Your task to perform on an android device: open app "Google Play Games" (install if not already installed) Image 0: 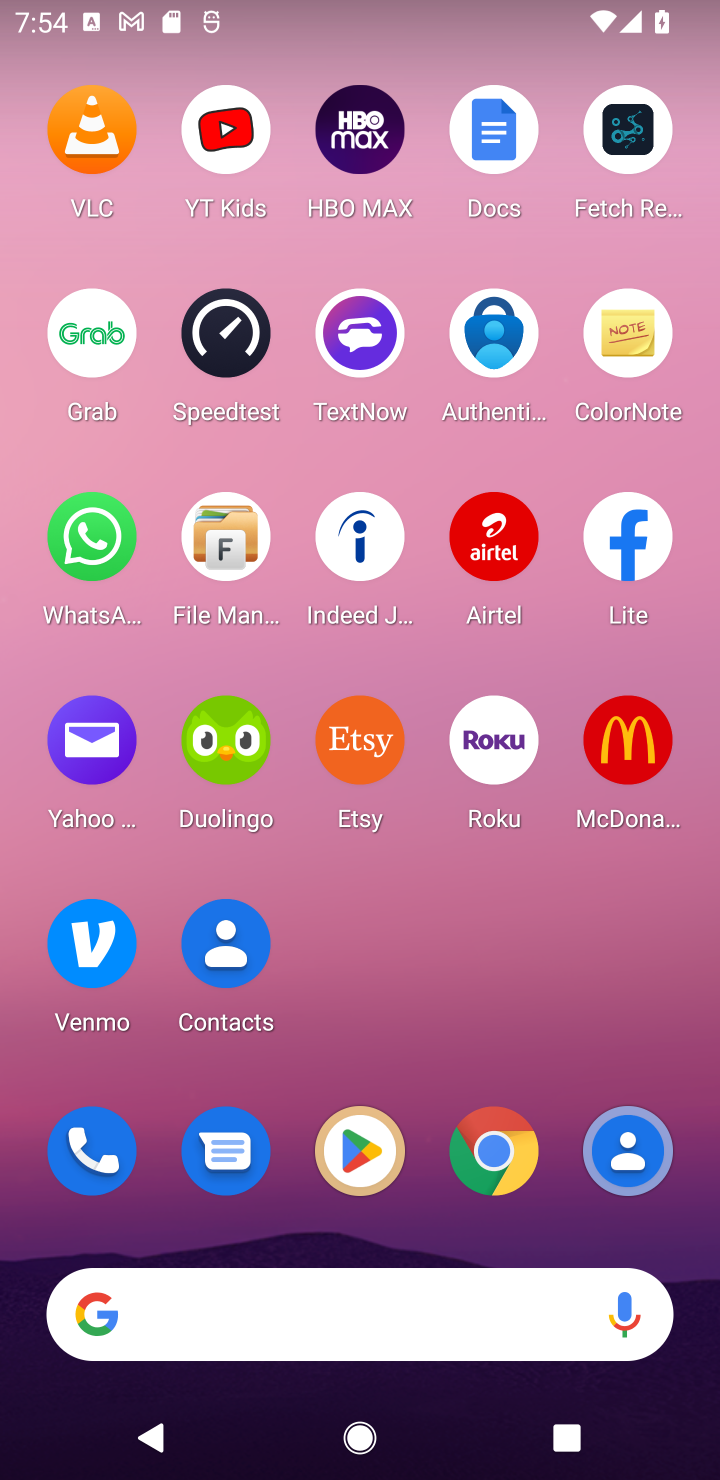
Step 0: press home button
Your task to perform on an android device: open app "Google Play Games" (install if not already installed) Image 1: 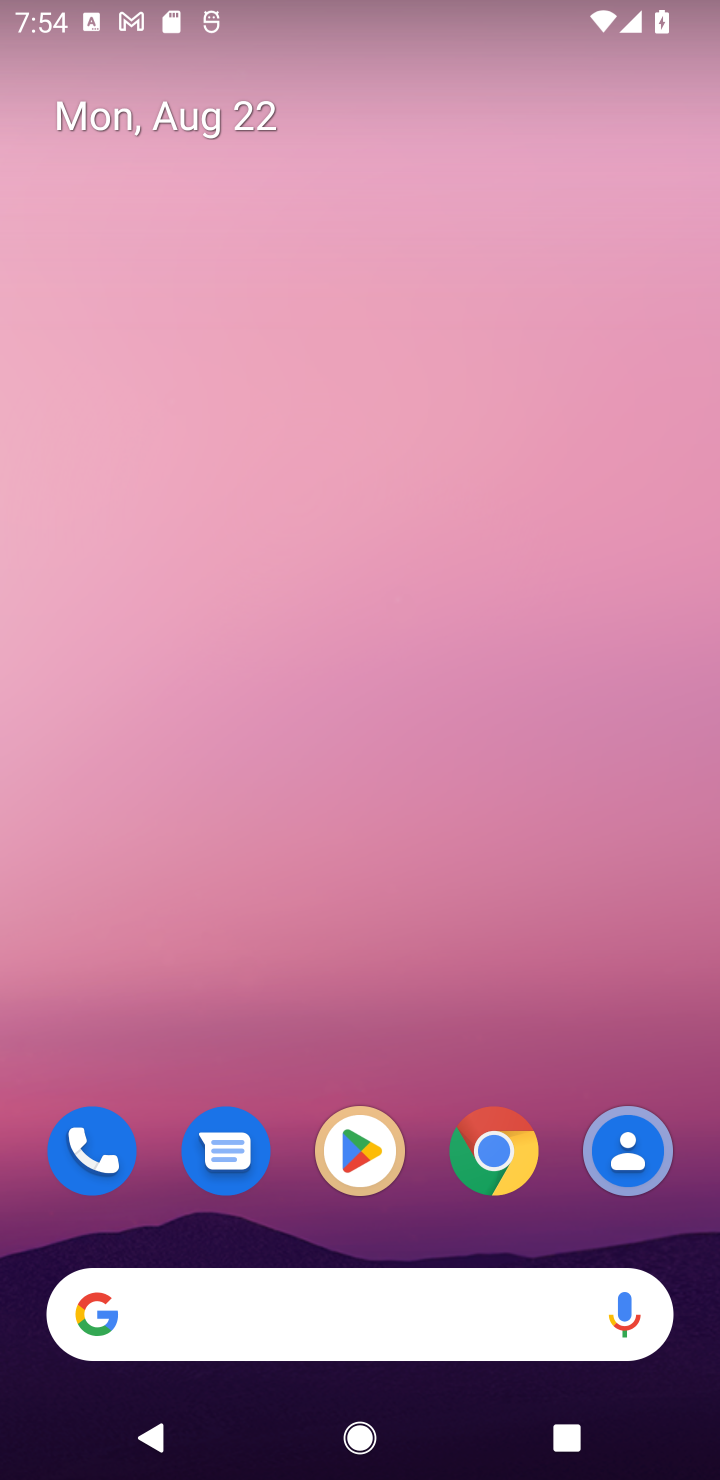
Step 1: click (335, 1137)
Your task to perform on an android device: open app "Google Play Games" (install if not already installed) Image 2: 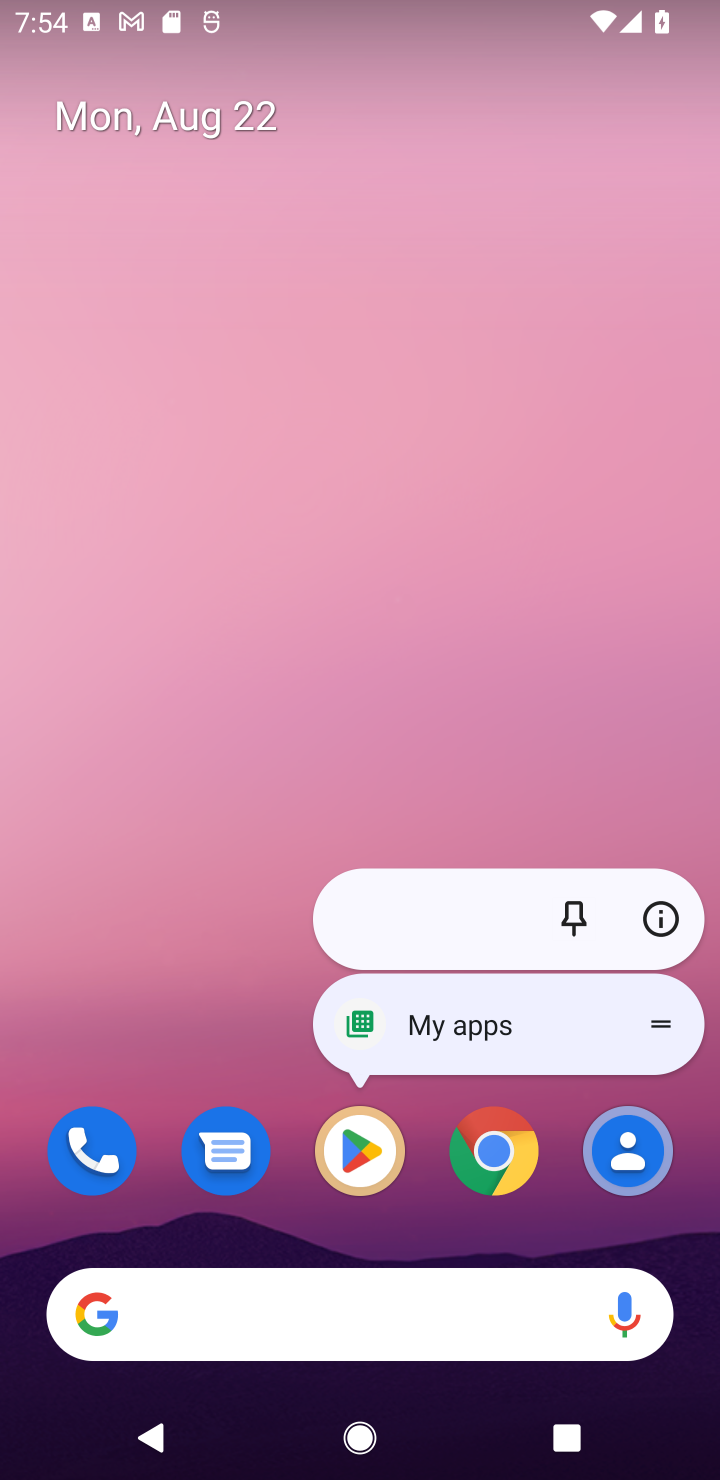
Step 2: click (335, 1145)
Your task to perform on an android device: open app "Google Play Games" (install if not already installed) Image 3: 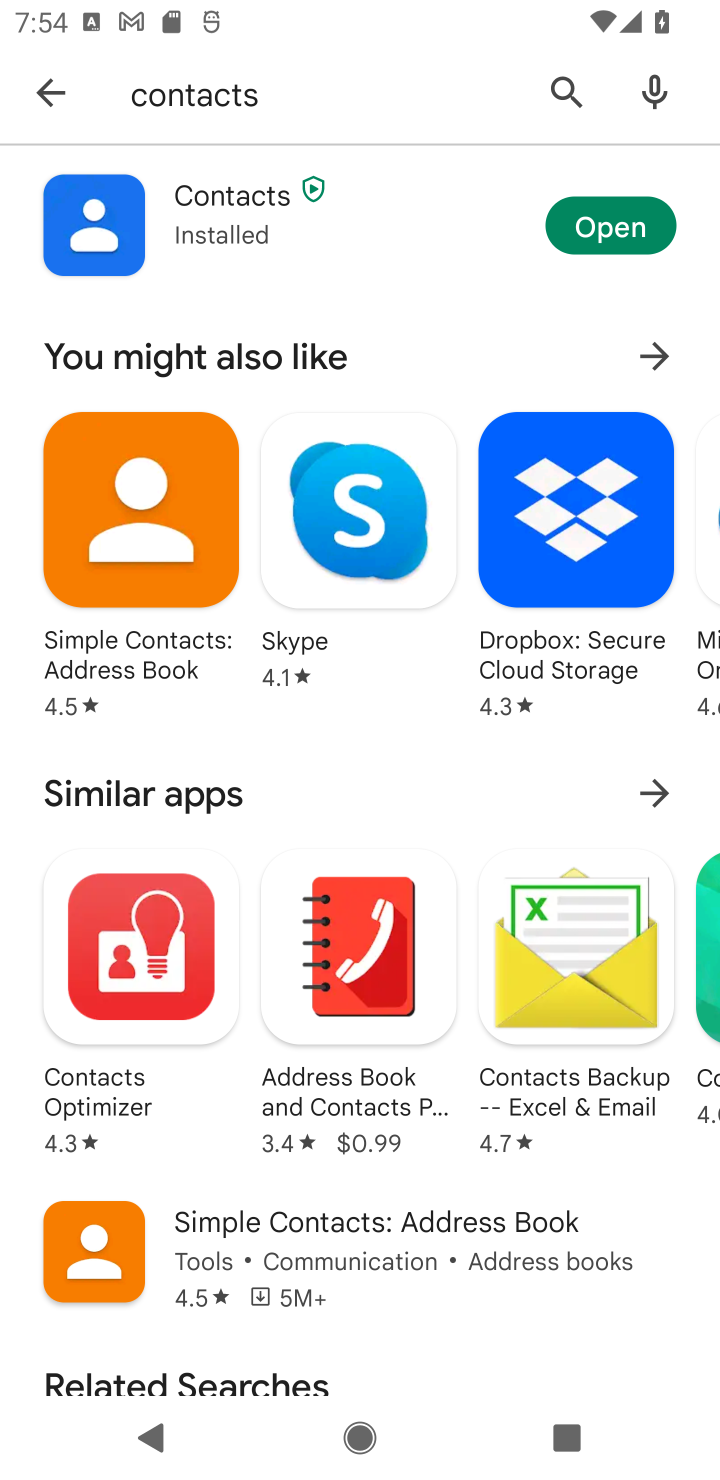
Step 3: click (553, 95)
Your task to perform on an android device: open app "Google Play Games" (install if not already installed) Image 4: 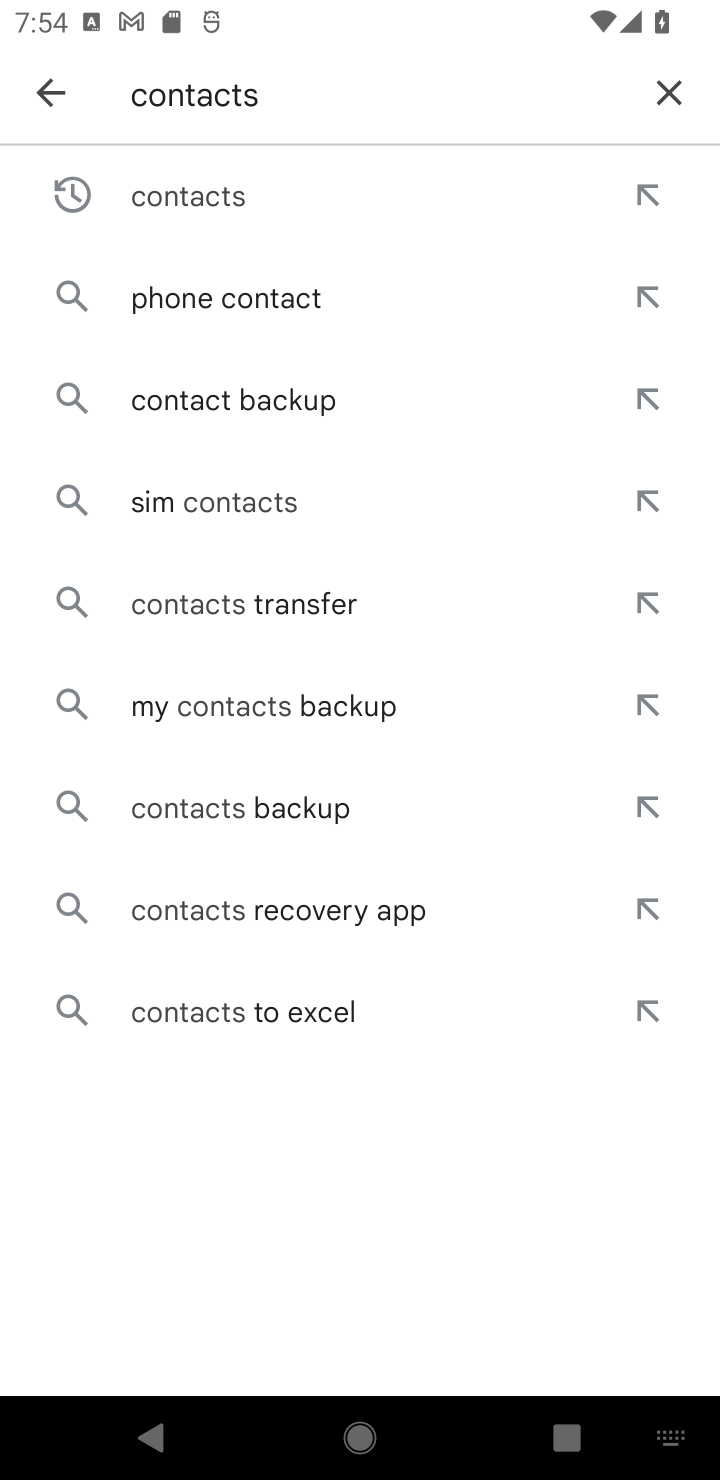
Step 4: click (660, 96)
Your task to perform on an android device: open app "Google Play Games" (install if not already installed) Image 5: 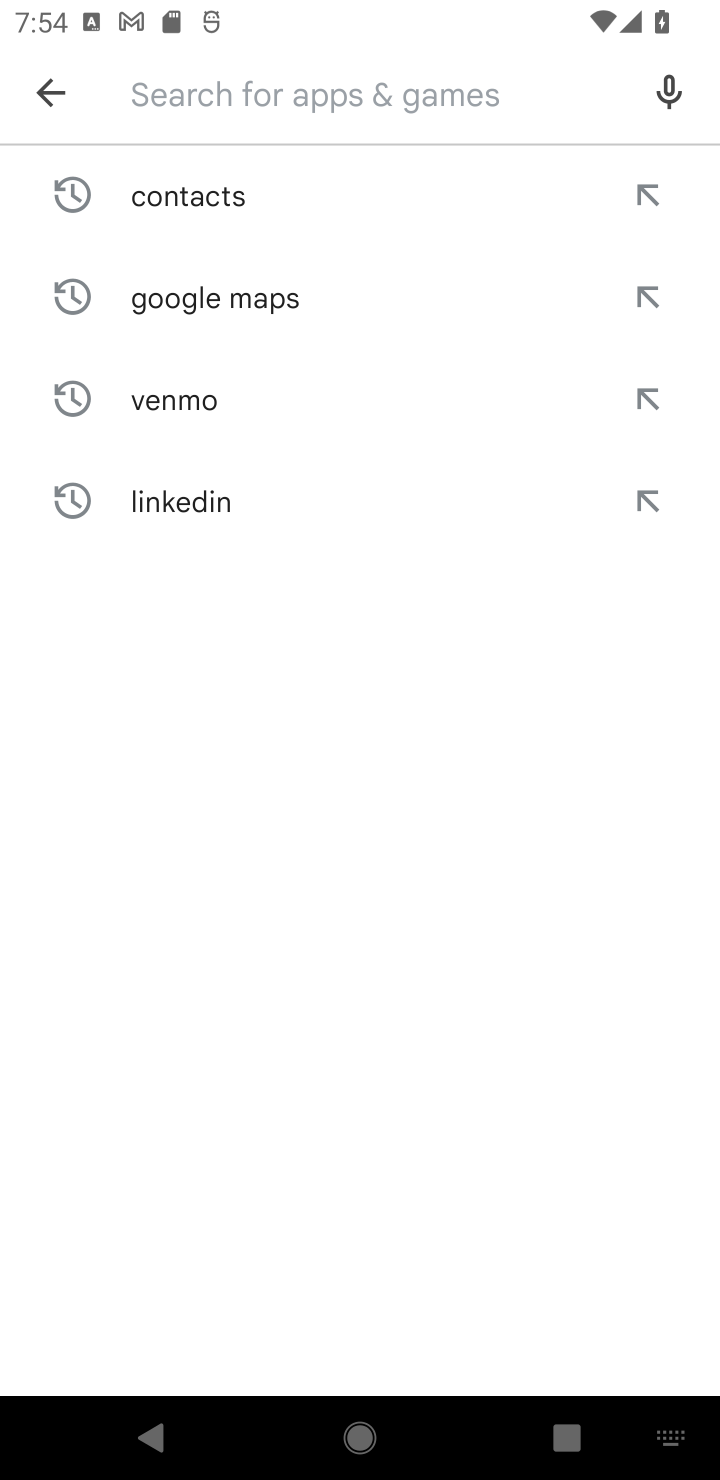
Step 5: type "Google Play Games"
Your task to perform on an android device: open app "Google Play Games" (install if not already installed) Image 6: 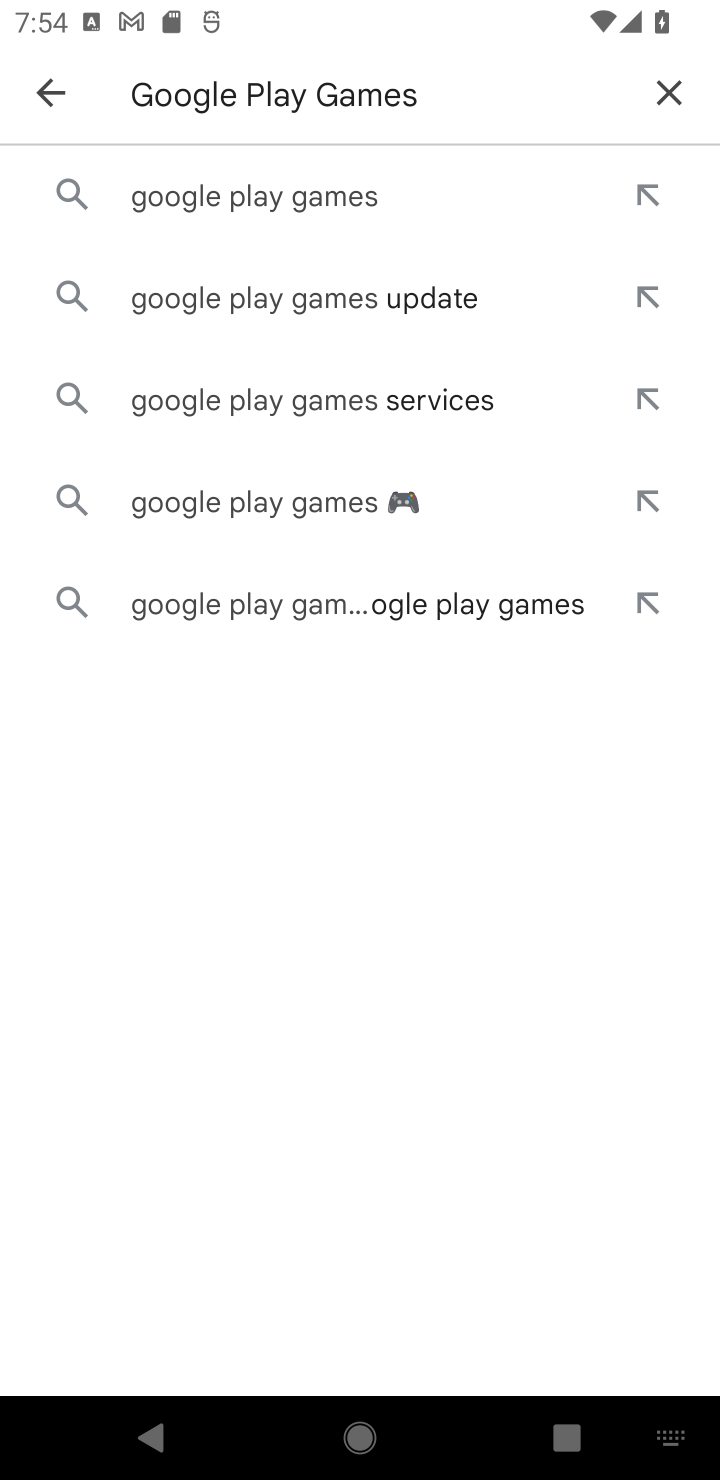
Step 6: click (171, 190)
Your task to perform on an android device: open app "Google Play Games" (install if not already installed) Image 7: 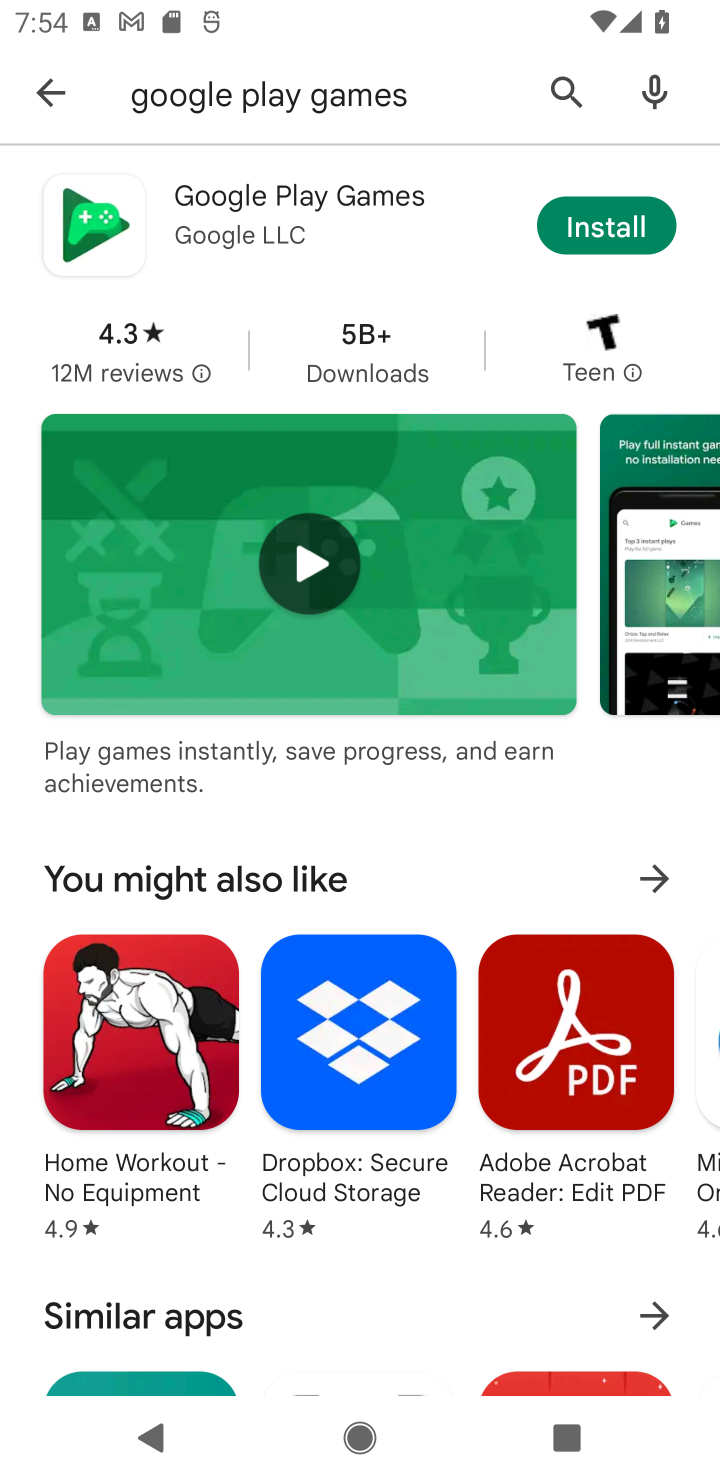
Step 7: click (592, 222)
Your task to perform on an android device: open app "Google Play Games" (install if not already installed) Image 8: 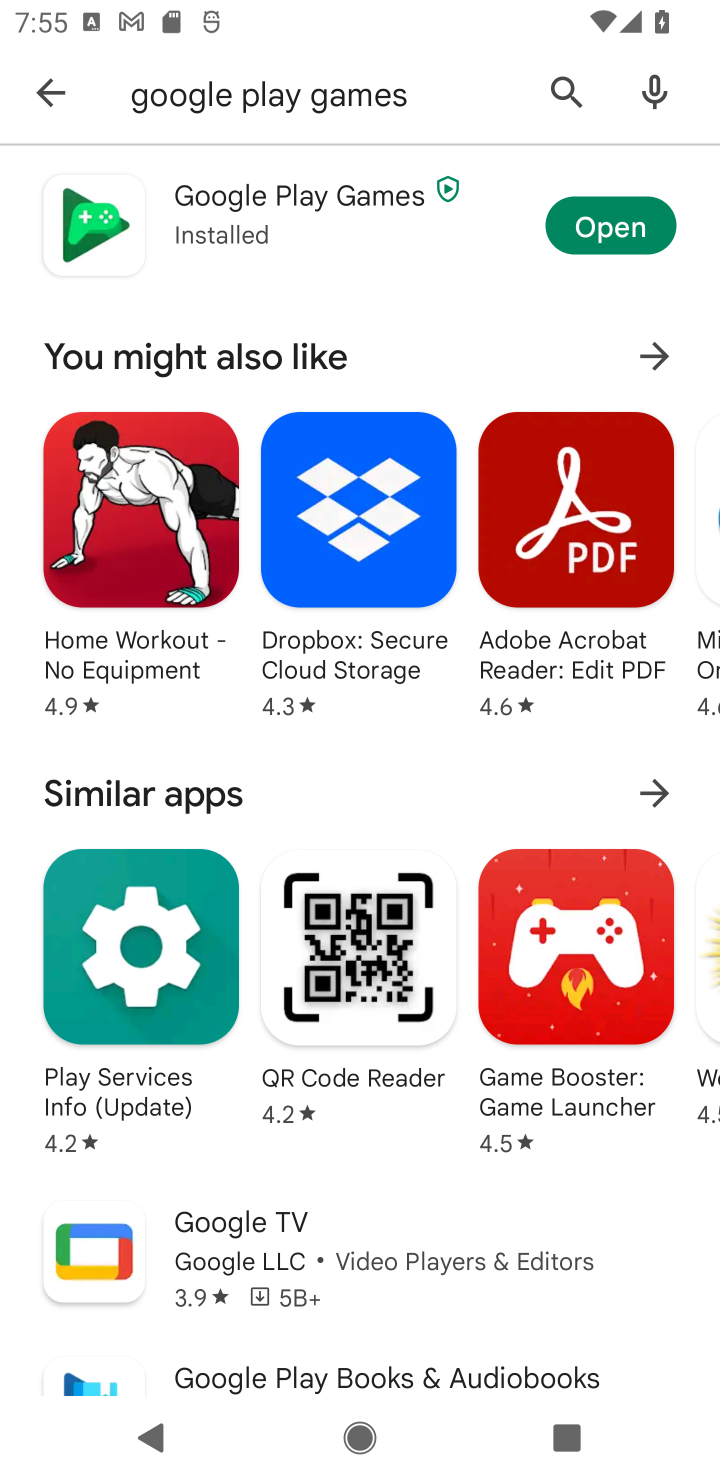
Step 8: click (620, 221)
Your task to perform on an android device: open app "Google Play Games" (install if not already installed) Image 9: 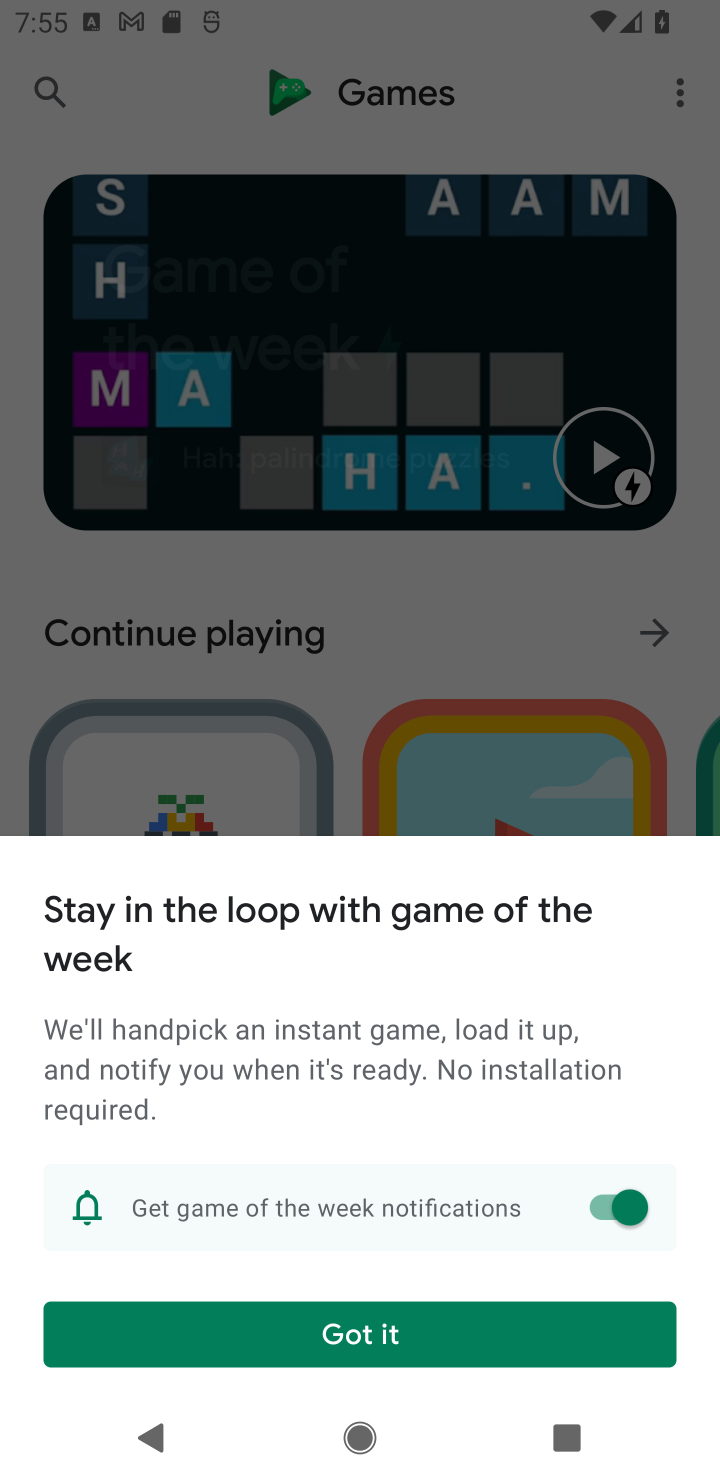
Step 9: task complete